Your task to perform on an android device: snooze an email in the gmail app Image 0: 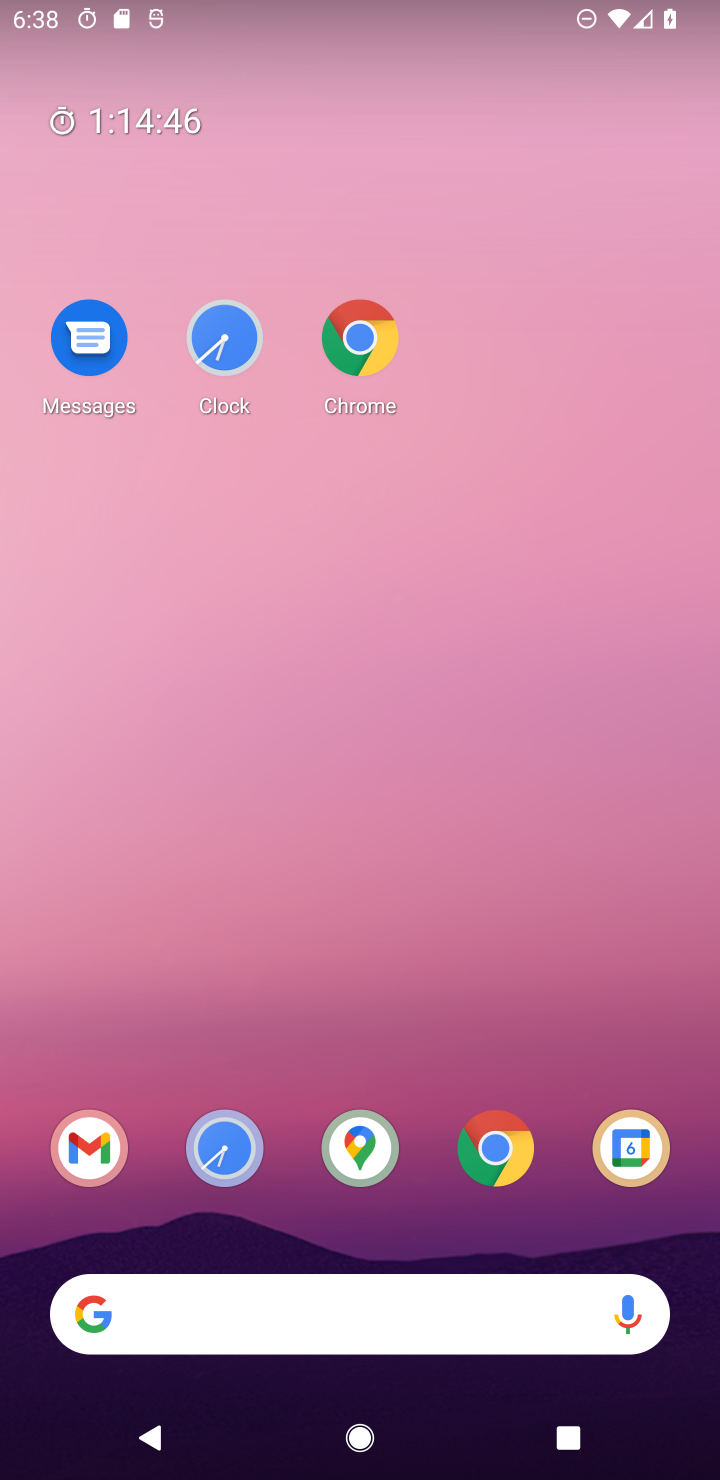
Step 0: click (660, 227)
Your task to perform on an android device: snooze an email in the gmail app Image 1: 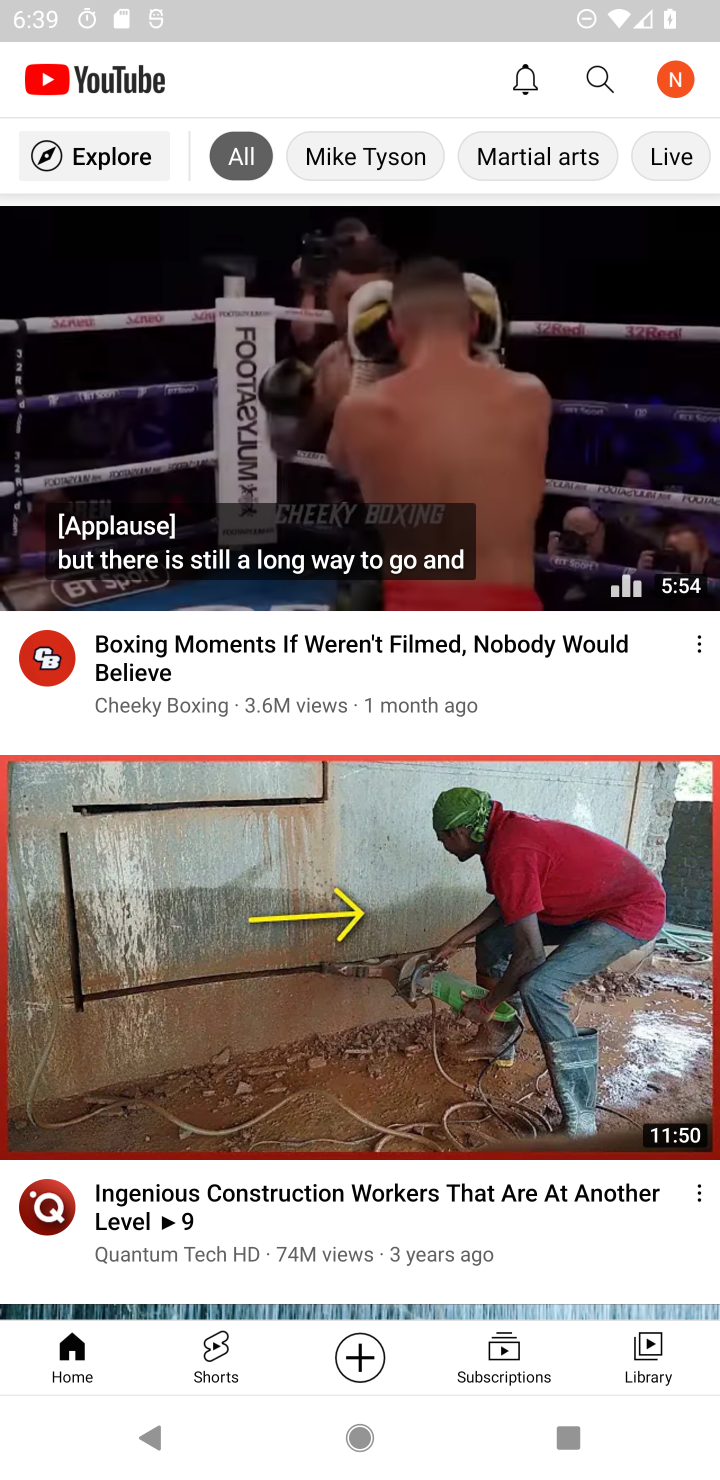
Step 1: press home button
Your task to perform on an android device: snooze an email in the gmail app Image 2: 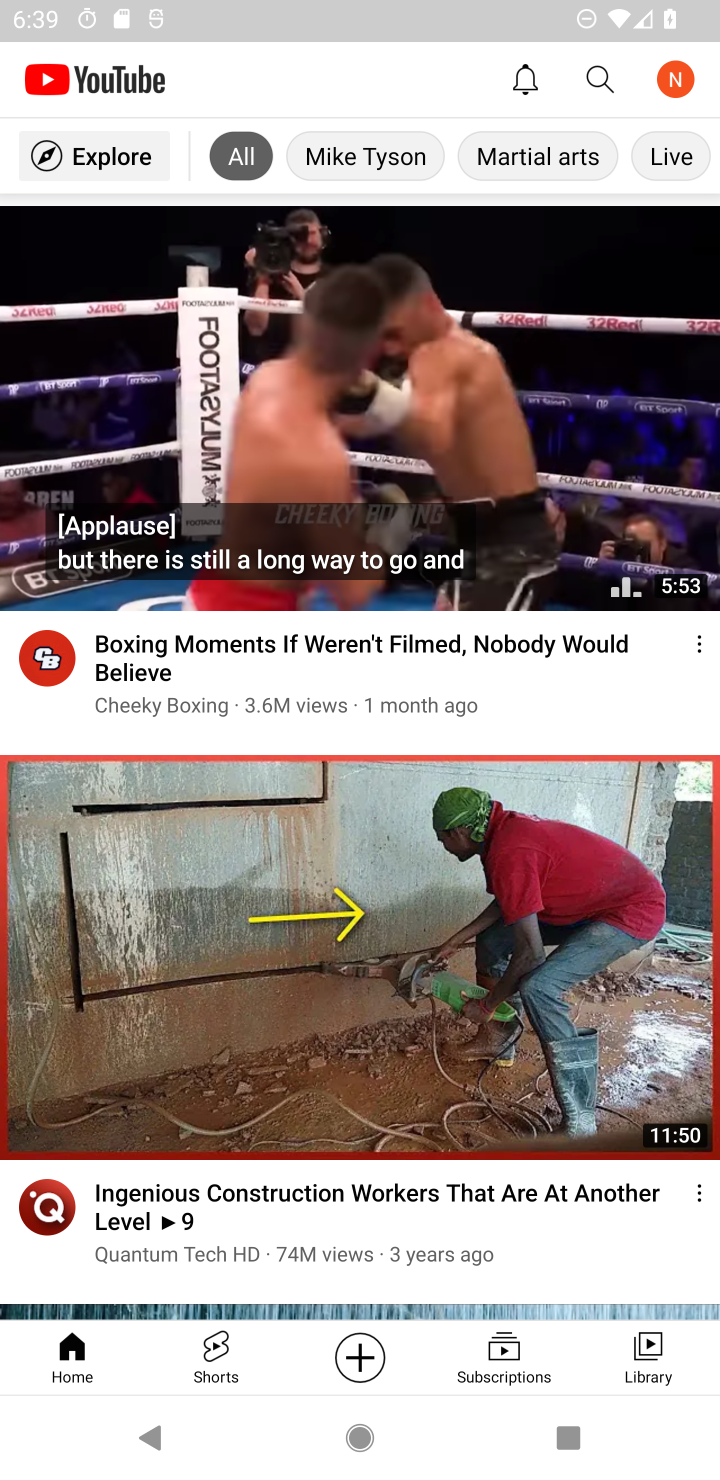
Step 2: drag from (429, 1139) to (545, 274)
Your task to perform on an android device: snooze an email in the gmail app Image 3: 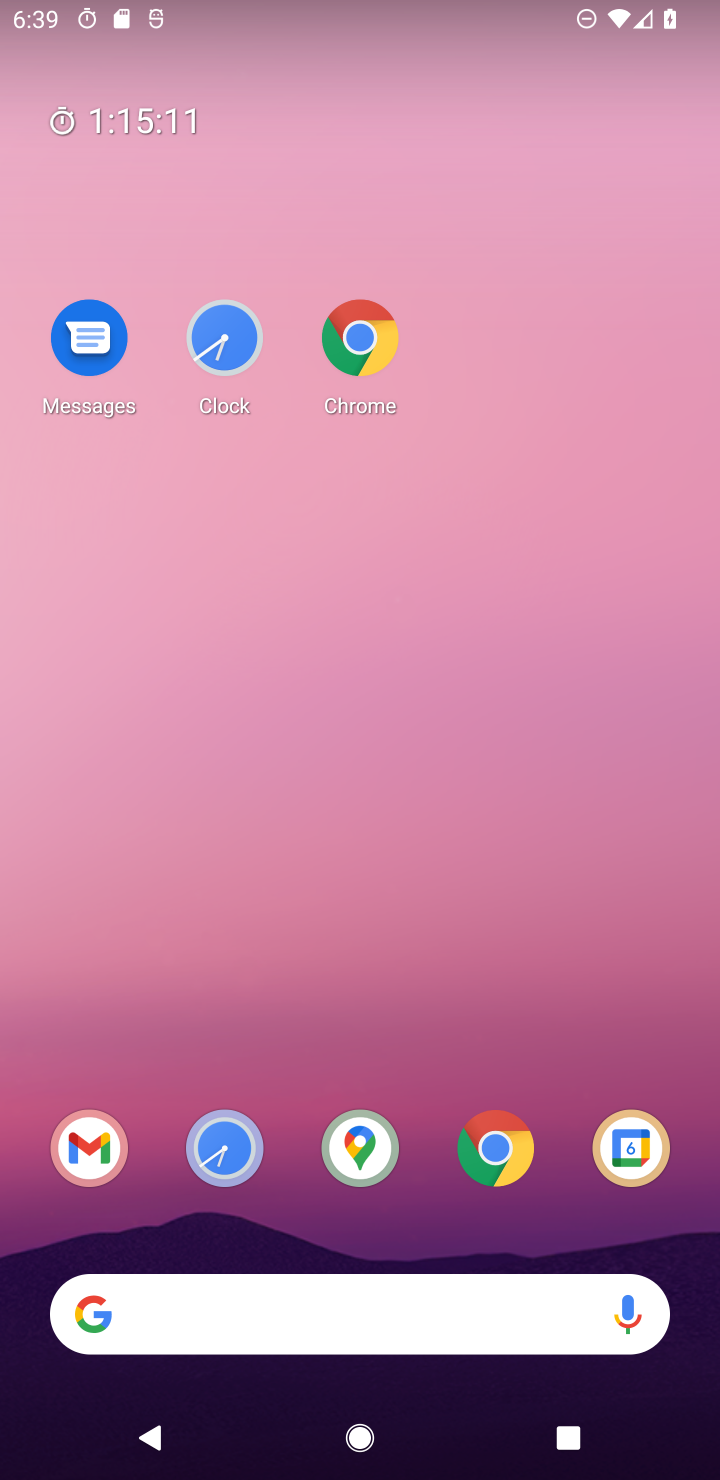
Step 3: press home button
Your task to perform on an android device: snooze an email in the gmail app Image 4: 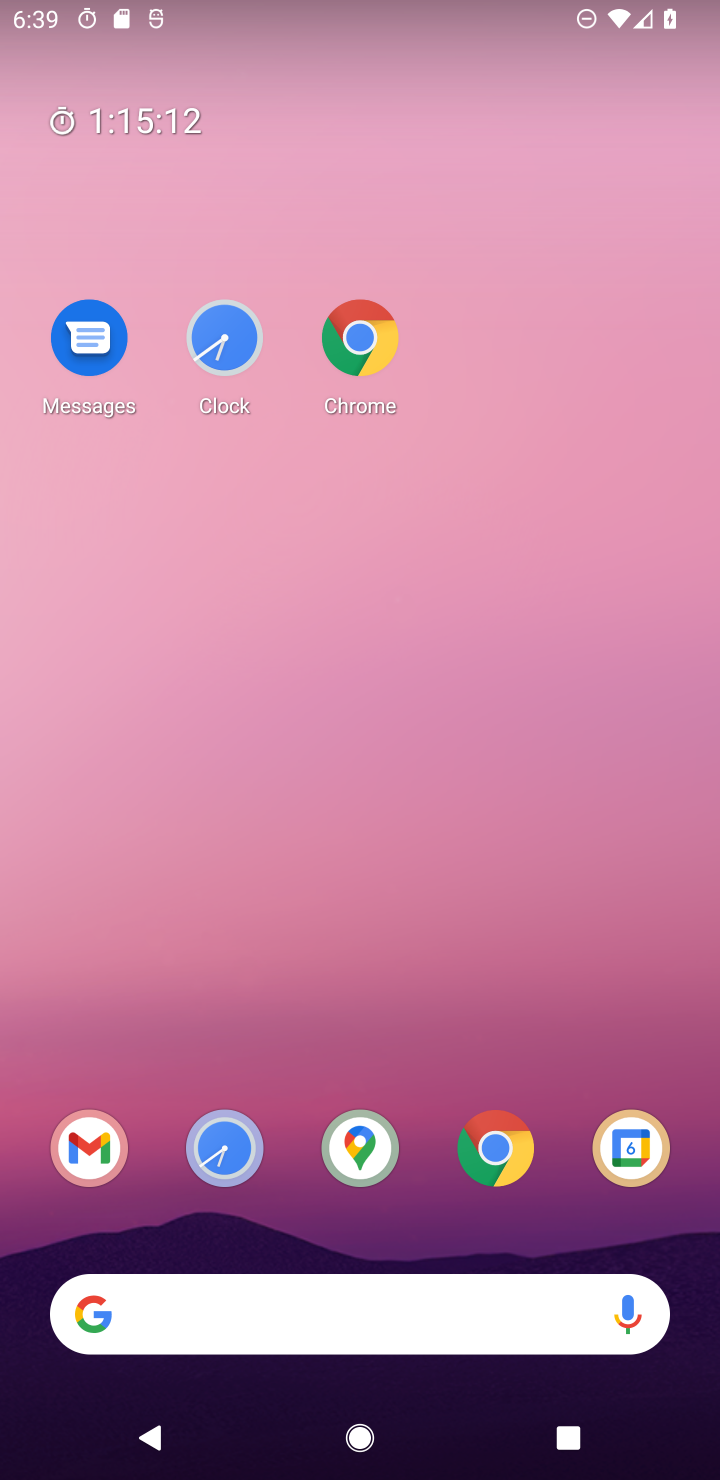
Step 4: drag from (394, 934) to (448, 275)
Your task to perform on an android device: snooze an email in the gmail app Image 5: 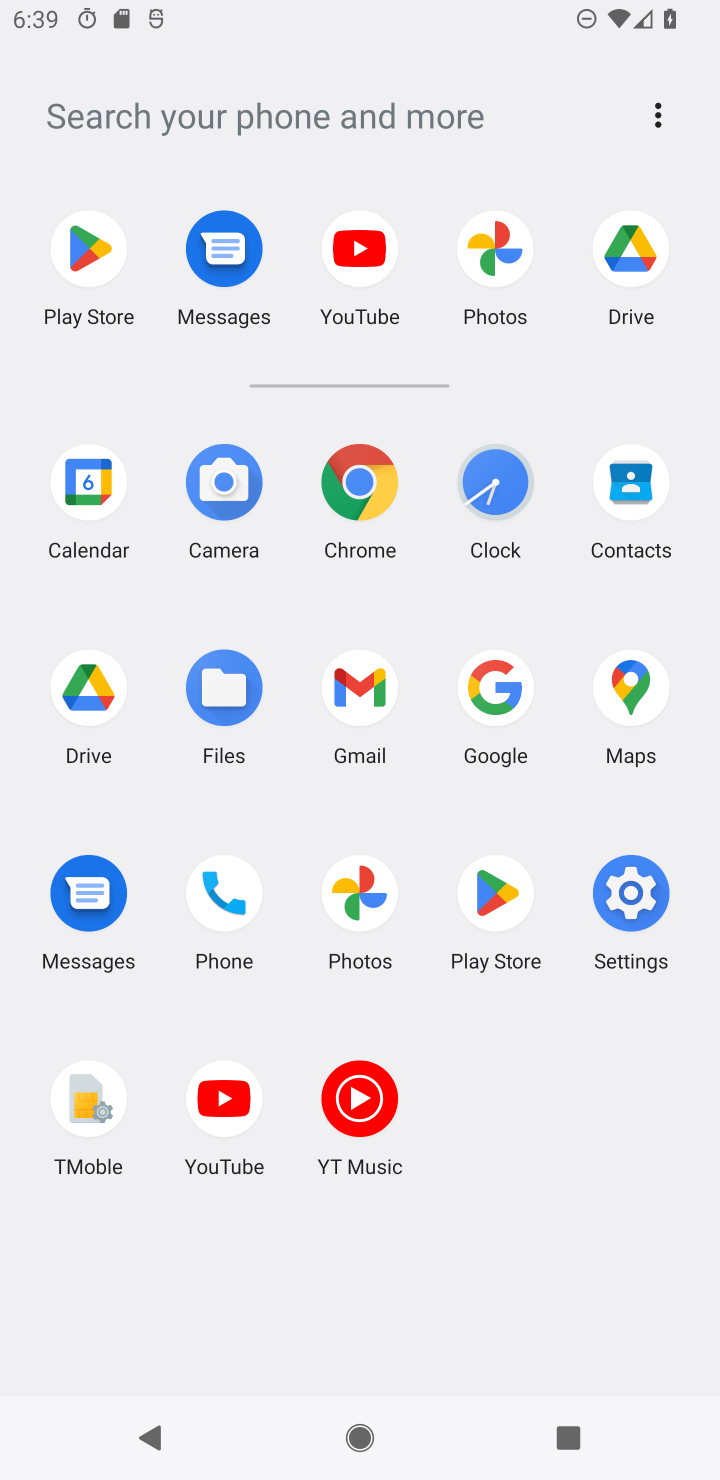
Step 5: click (347, 691)
Your task to perform on an android device: snooze an email in the gmail app Image 6: 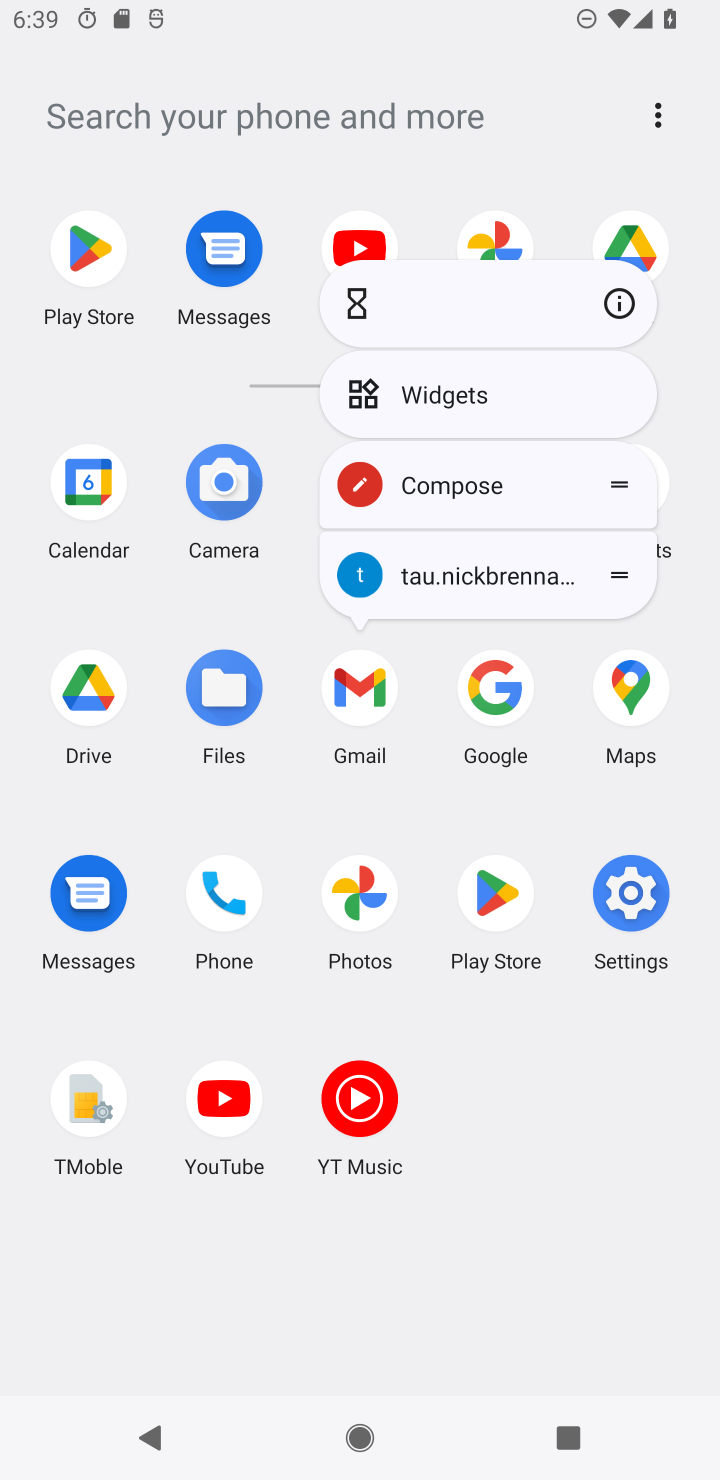
Step 6: click (622, 303)
Your task to perform on an android device: snooze an email in the gmail app Image 7: 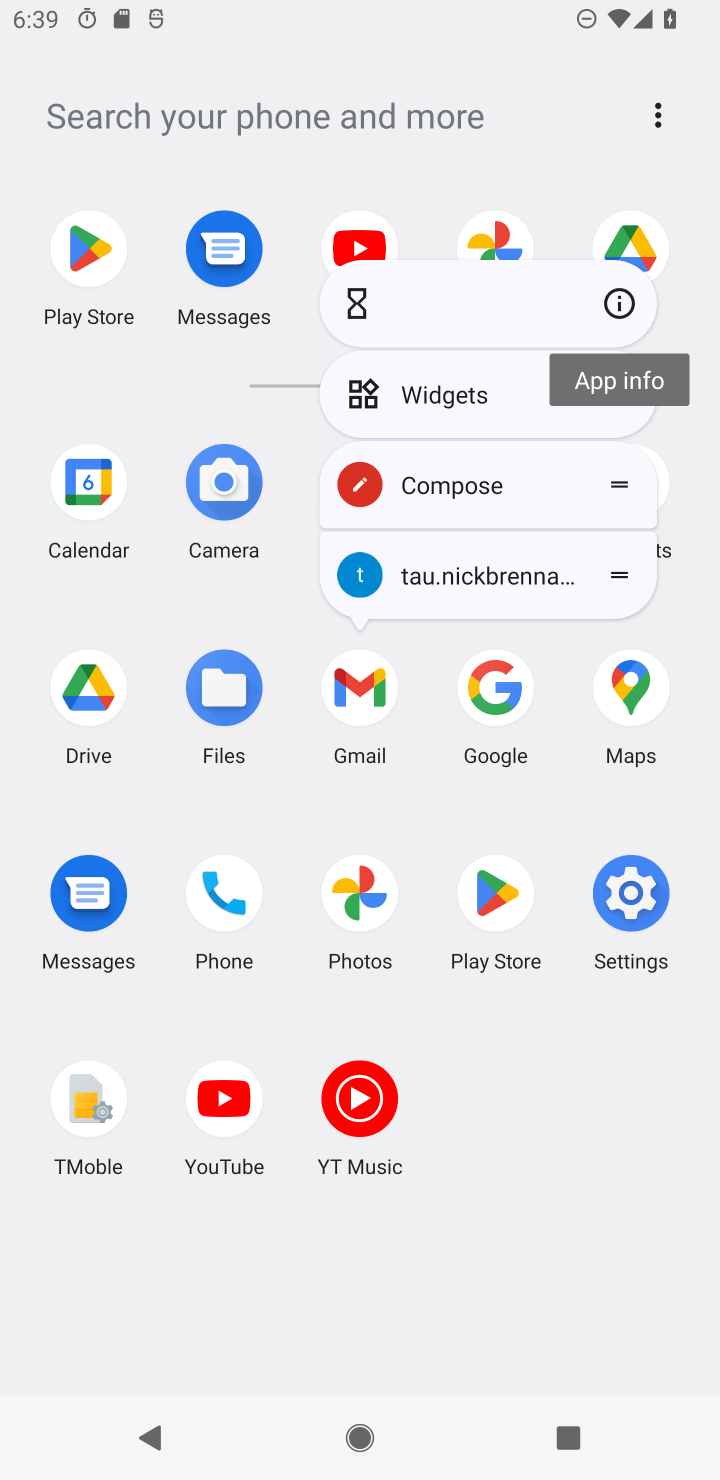
Step 7: click (622, 303)
Your task to perform on an android device: snooze an email in the gmail app Image 8: 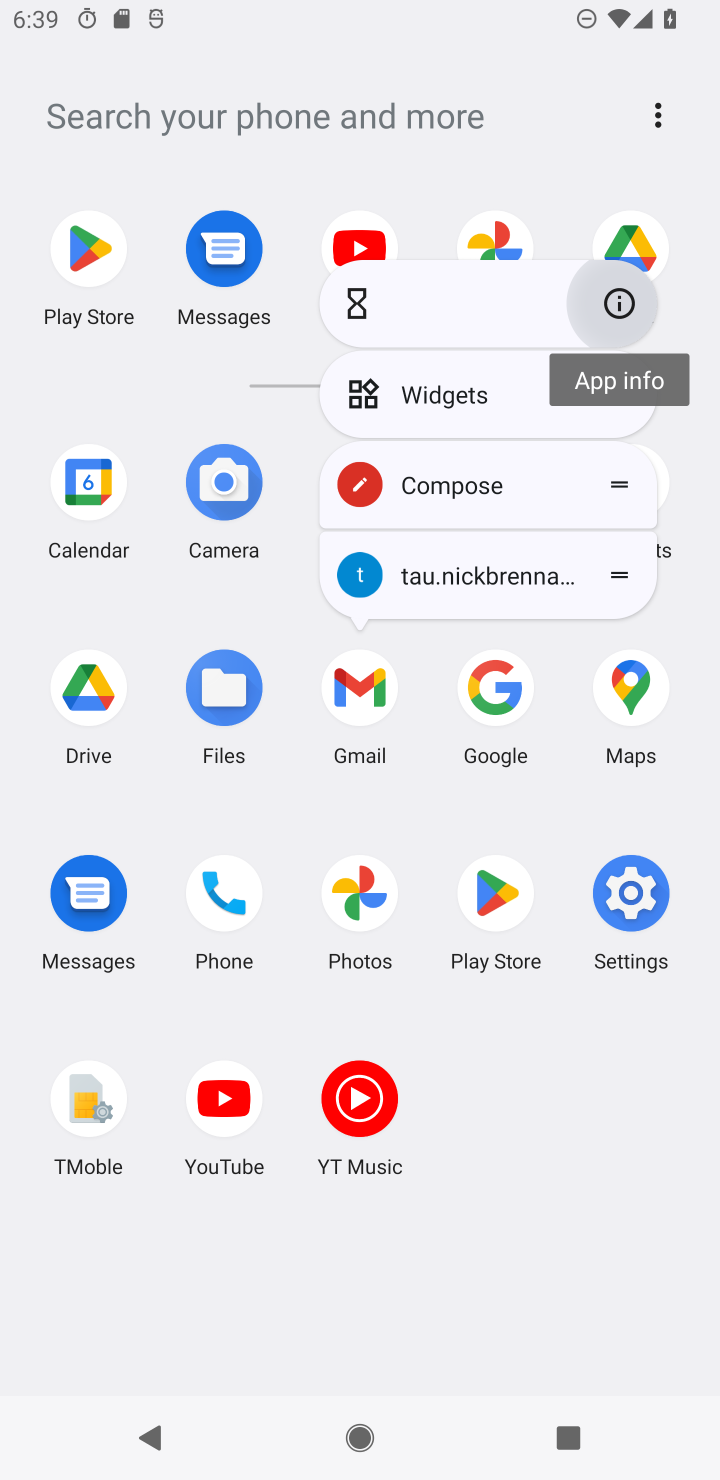
Step 8: click (622, 303)
Your task to perform on an android device: snooze an email in the gmail app Image 9: 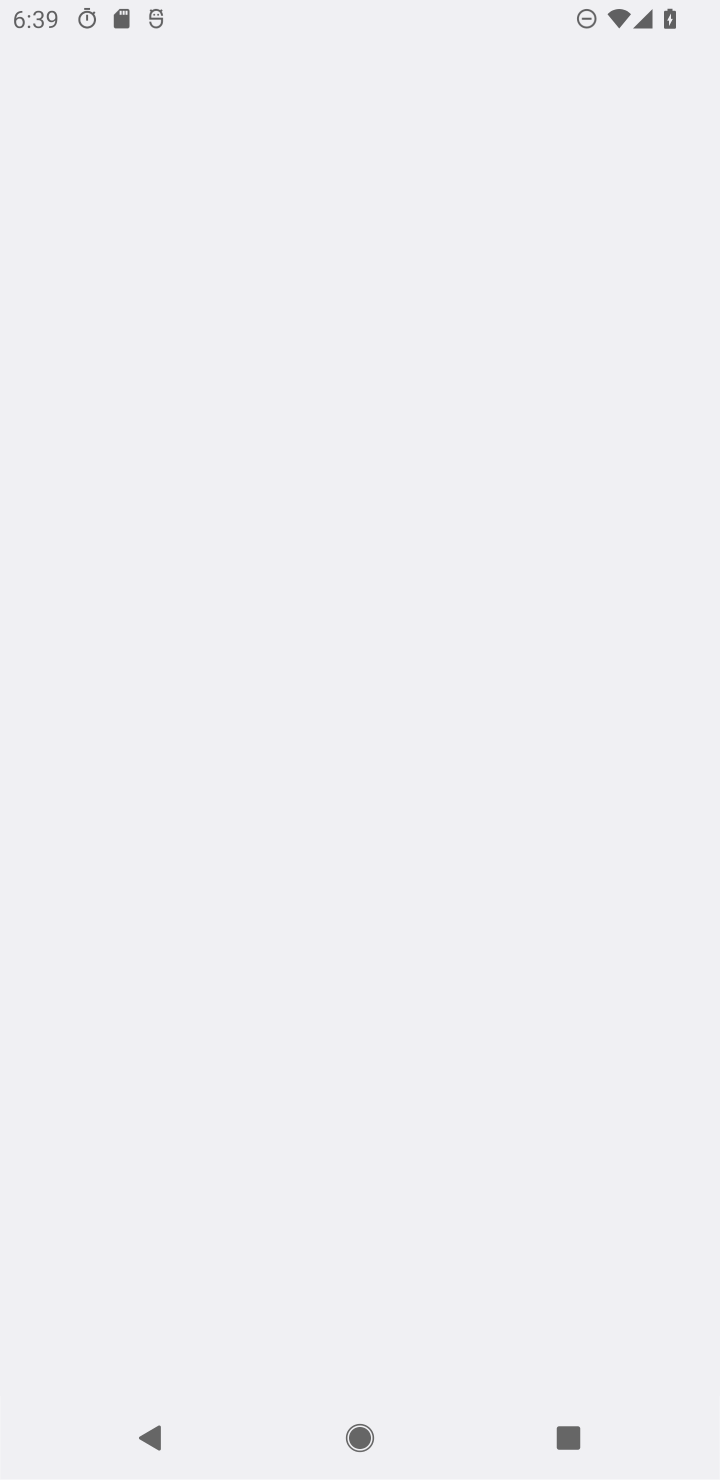
Step 9: click (350, 686)
Your task to perform on an android device: snooze an email in the gmail app Image 10: 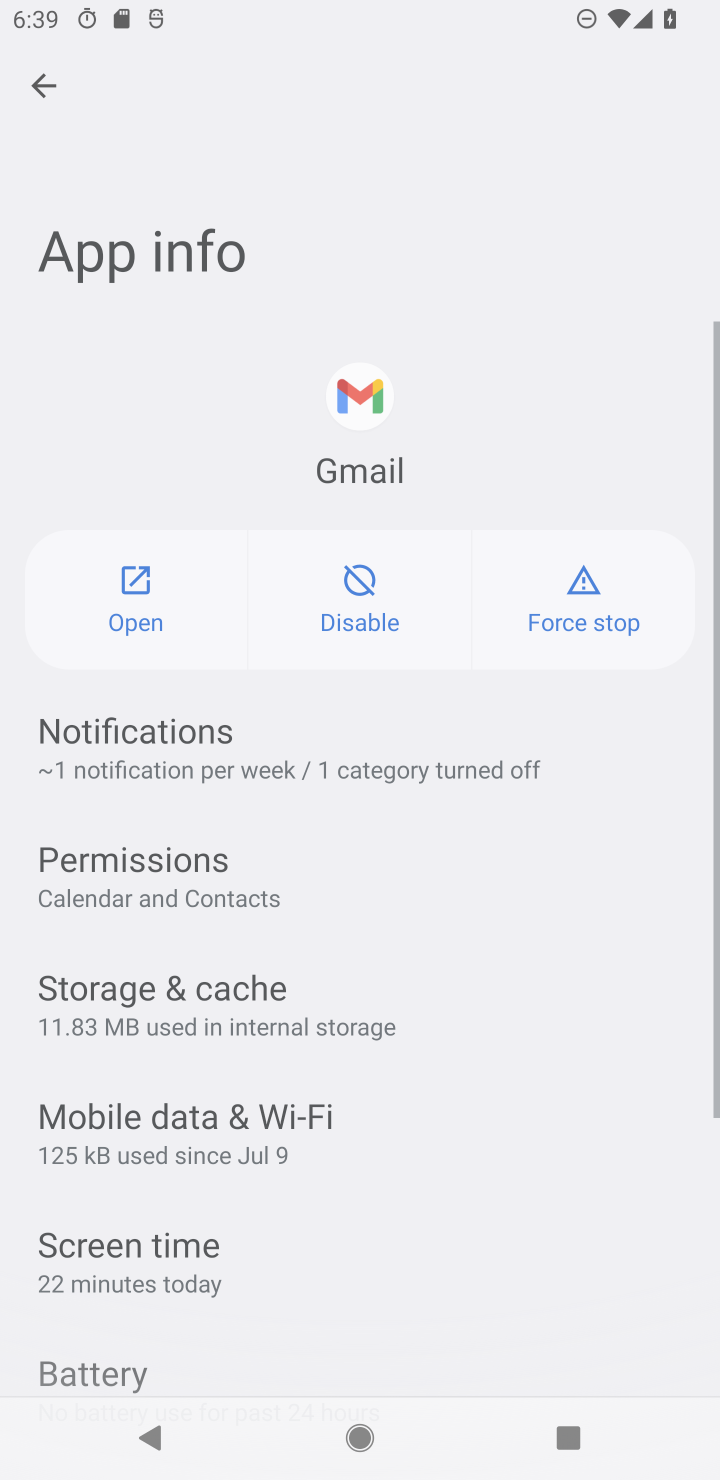
Step 10: drag from (364, 998) to (462, 280)
Your task to perform on an android device: snooze an email in the gmail app Image 11: 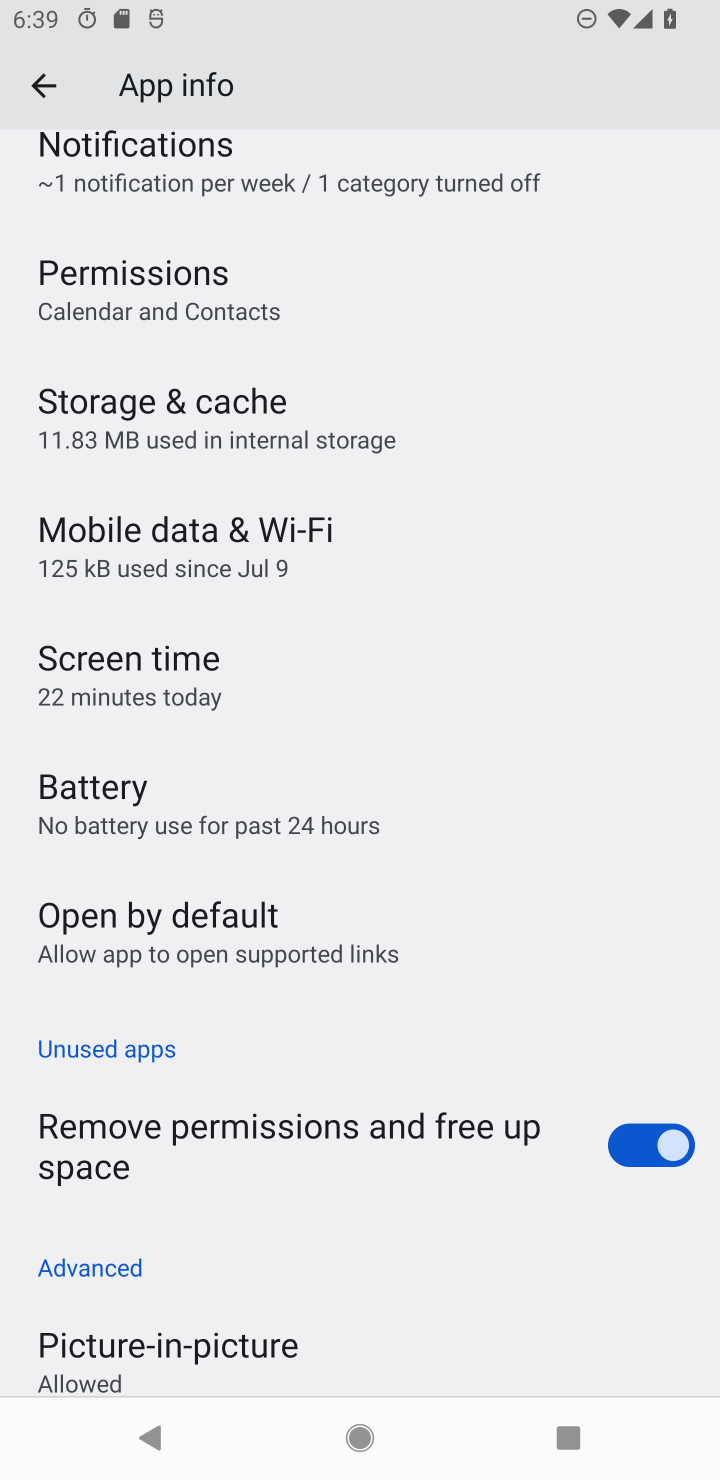
Step 11: drag from (263, 476) to (257, 1230)
Your task to perform on an android device: snooze an email in the gmail app Image 12: 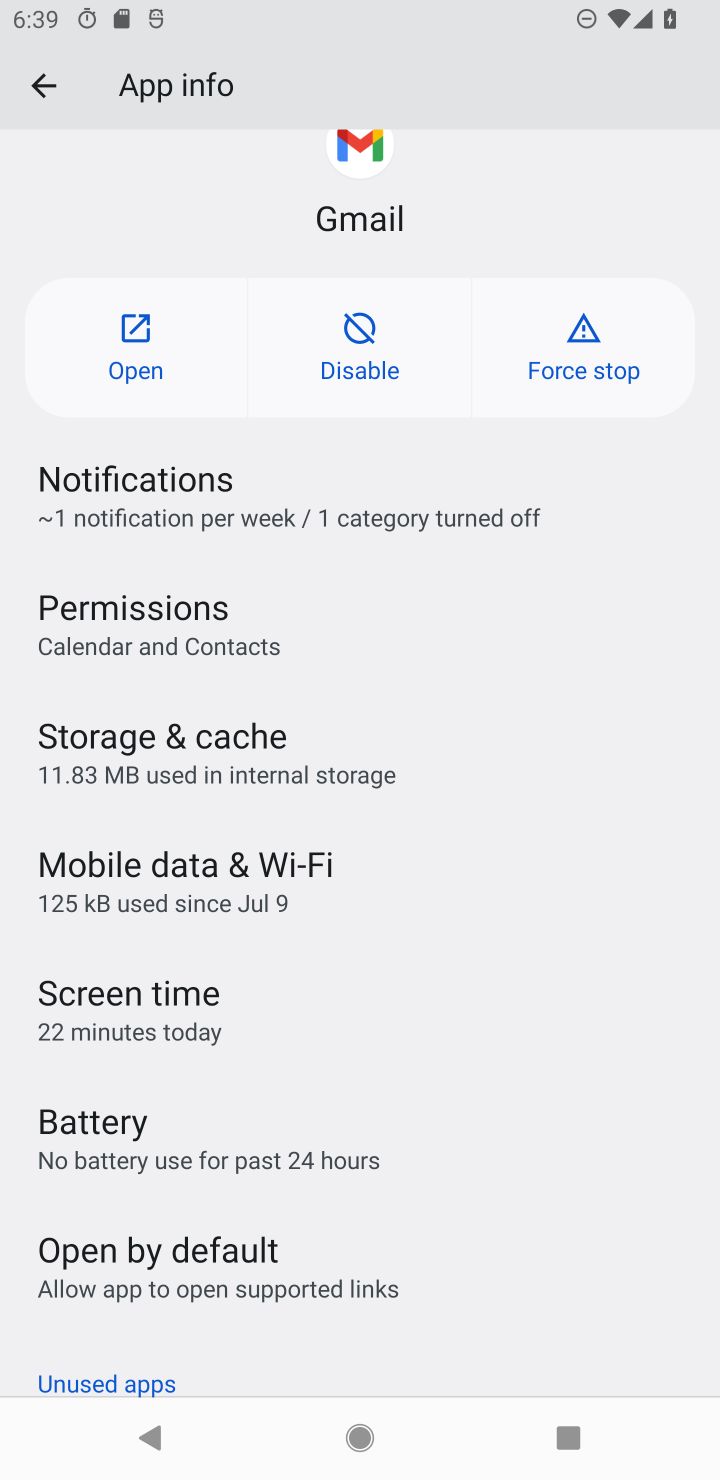
Step 12: click (137, 359)
Your task to perform on an android device: snooze an email in the gmail app Image 13: 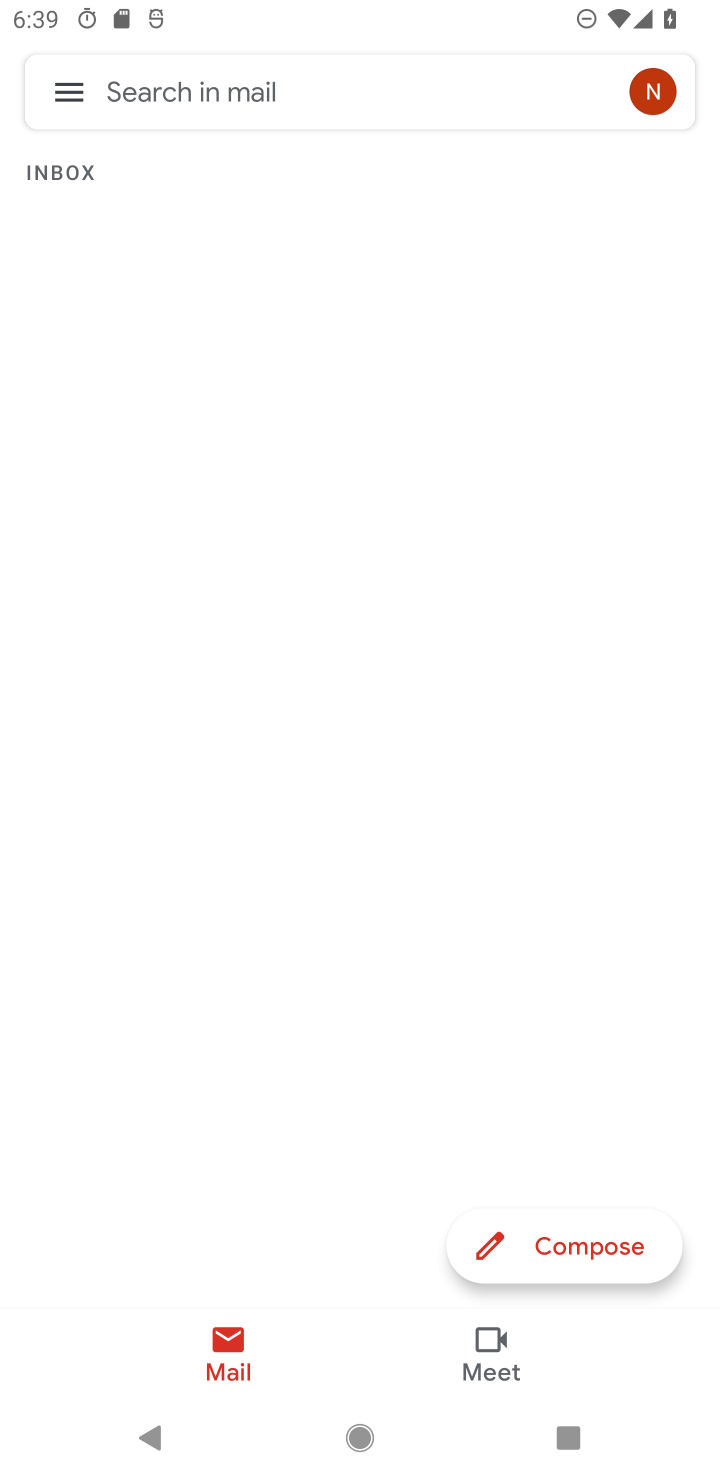
Step 13: click (56, 111)
Your task to perform on an android device: snooze an email in the gmail app Image 14: 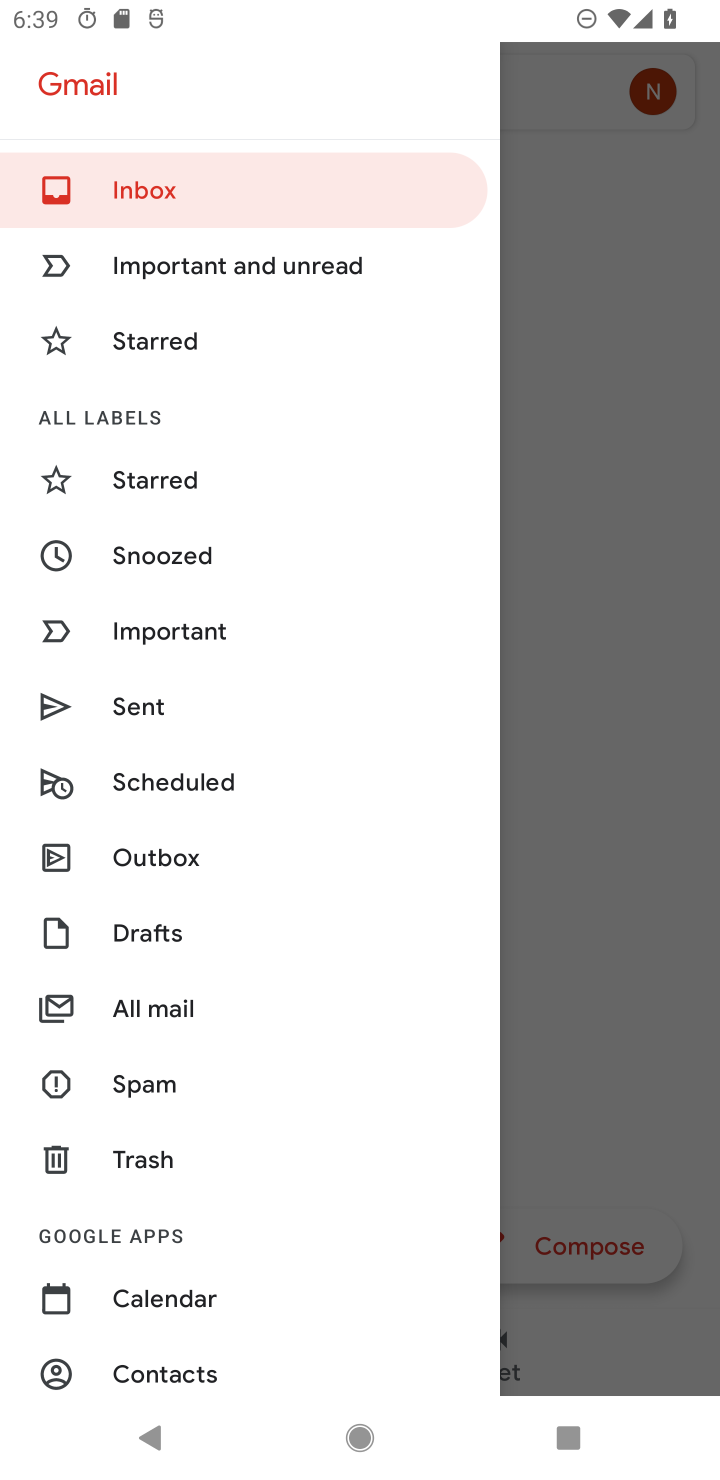
Step 14: click (159, 217)
Your task to perform on an android device: snooze an email in the gmail app Image 15: 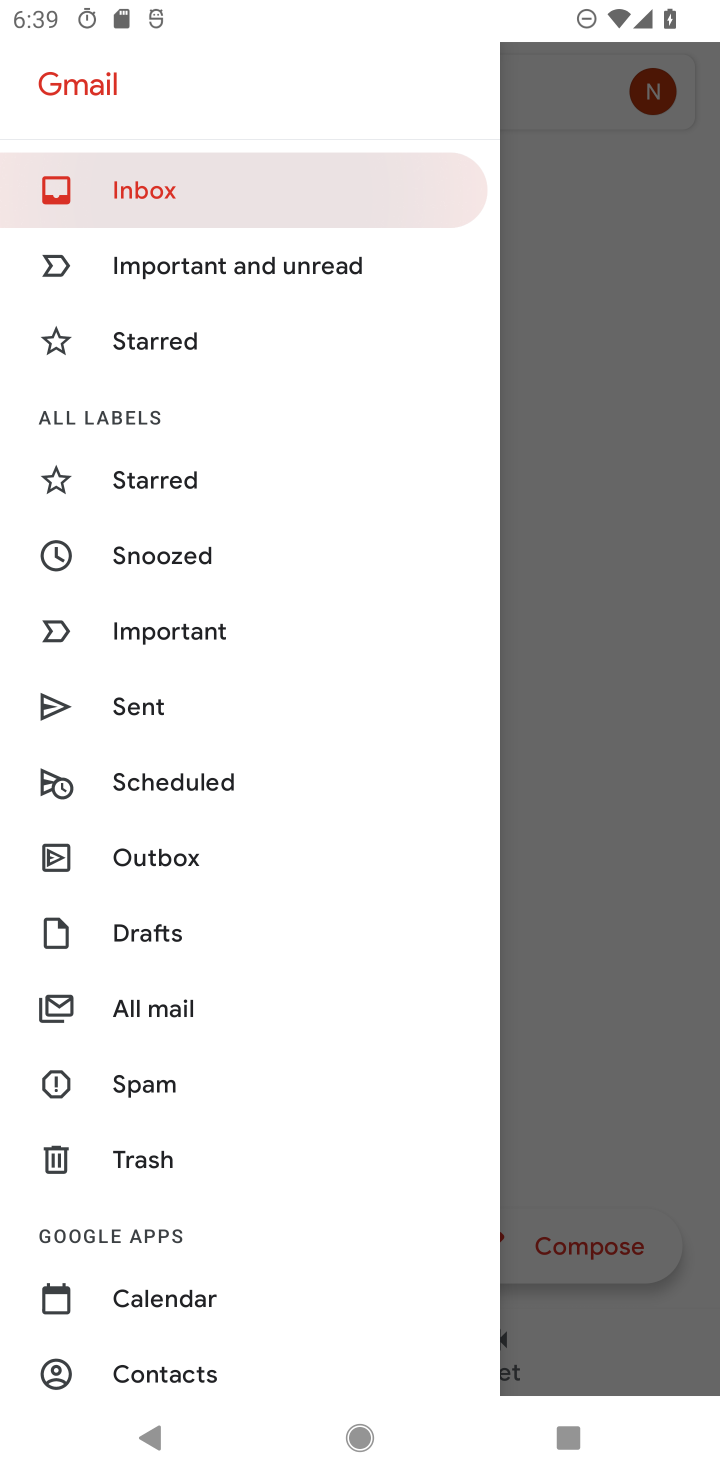
Step 15: click (562, 382)
Your task to perform on an android device: snooze an email in the gmail app Image 16: 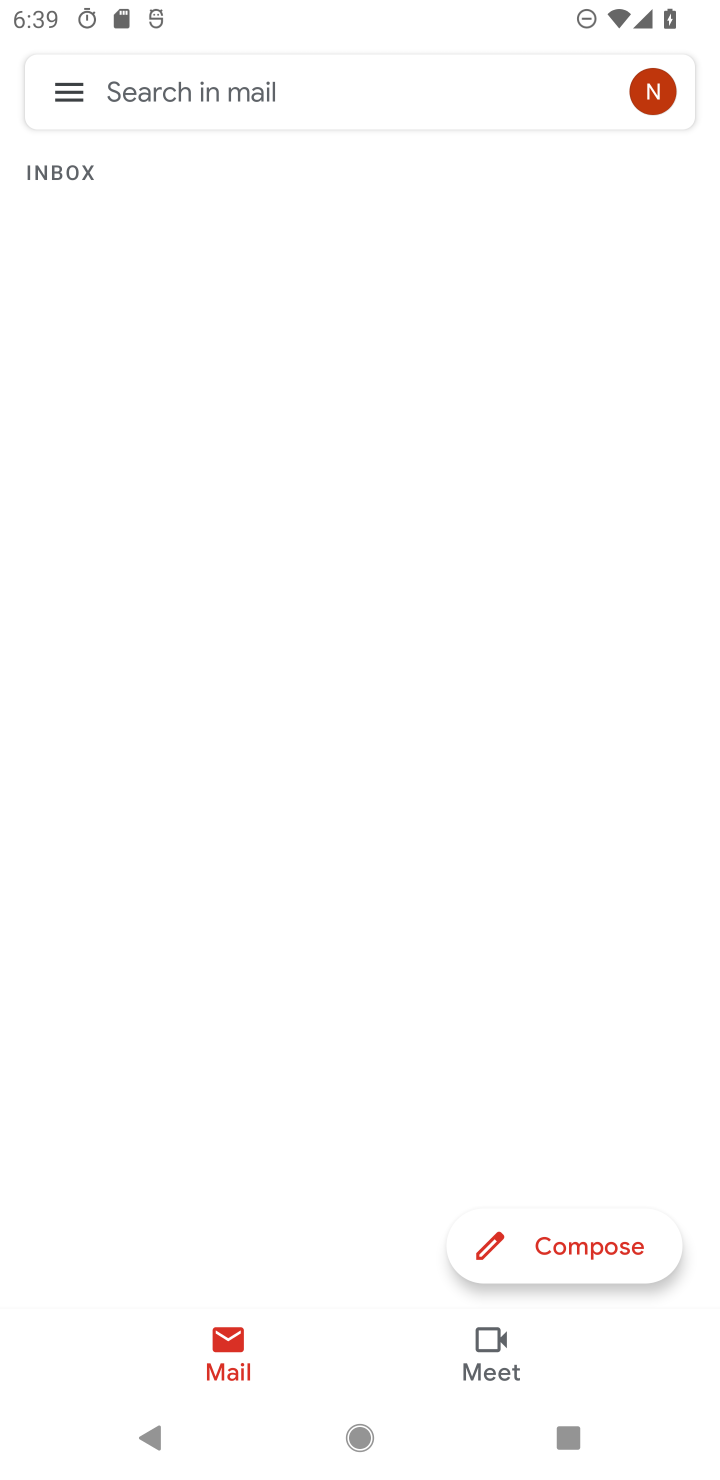
Step 16: task complete